Your task to perform on an android device: Open Chrome and go to the settings page Image 0: 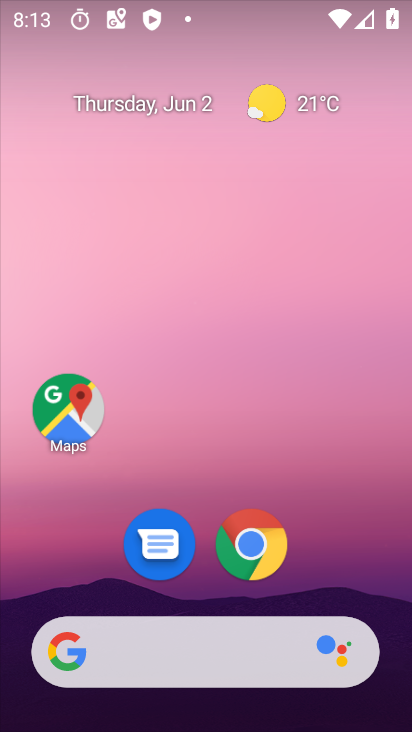
Step 0: drag from (344, 601) to (260, 285)
Your task to perform on an android device: Open Chrome and go to the settings page Image 1: 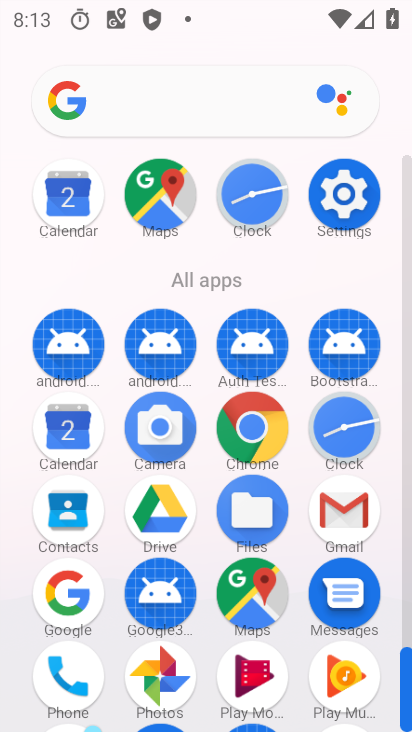
Step 1: click (276, 435)
Your task to perform on an android device: Open Chrome and go to the settings page Image 2: 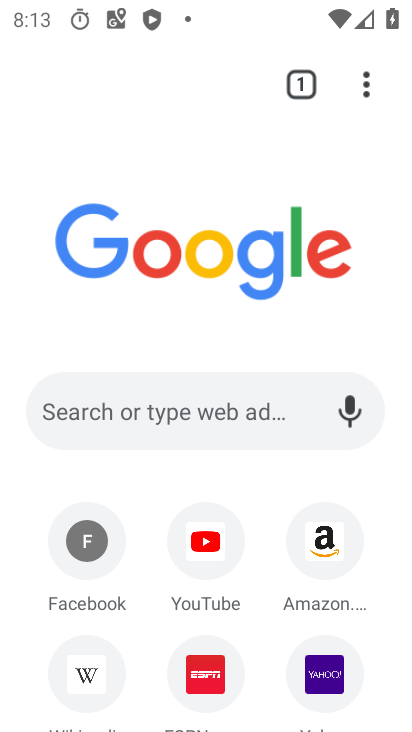
Step 2: click (361, 106)
Your task to perform on an android device: Open Chrome and go to the settings page Image 3: 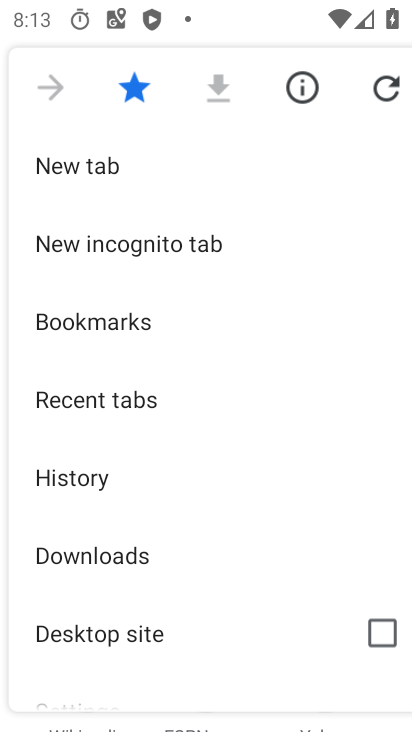
Step 3: drag from (226, 589) to (233, 255)
Your task to perform on an android device: Open Chrome and go to the settings page Image 4: 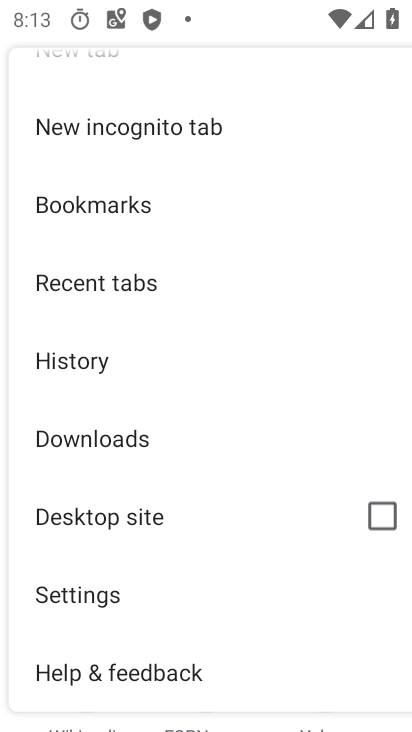
Step 4: click (188, 593)
Your task to perform on an android device: Open Chrome and go to the settings page Image 5: 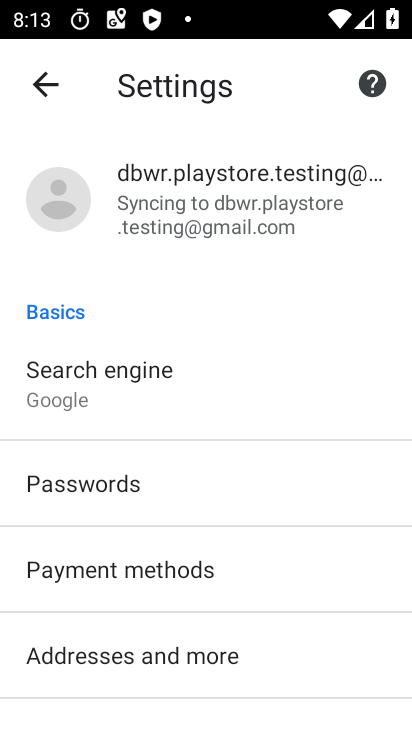
Step 5: task complete